Your task to perform on an android device: Open Chrome and go to the settings page Image 0: 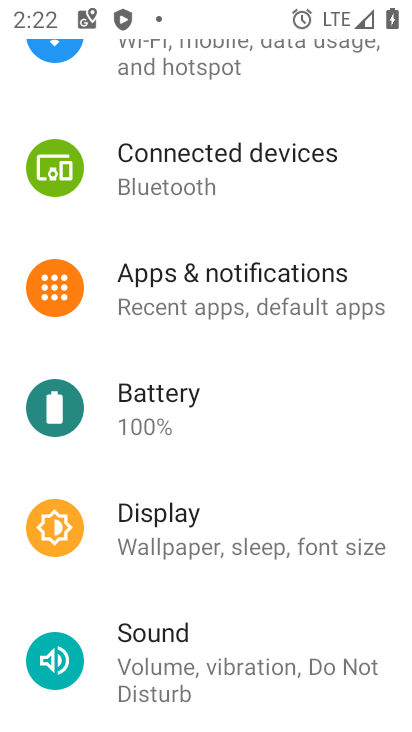
Step 0: press back button
Your task to perform on an android device: Open Chrome and go to the settings page Image 1: 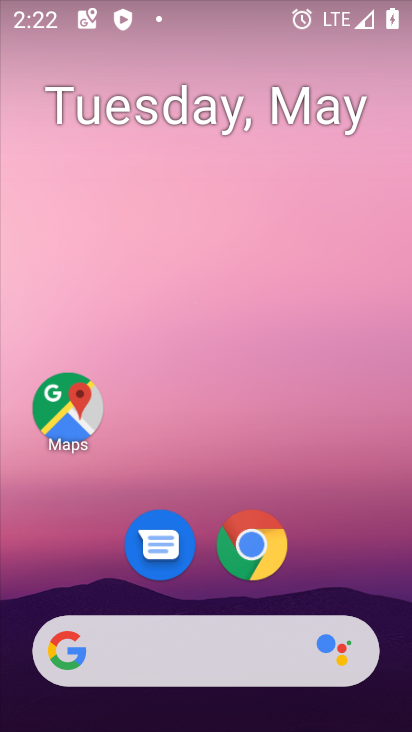
Step 1: drag from (349, 513) to (255, 9)
Your task to perform on an android device: Open Chrome and go to the settings page Image 2: 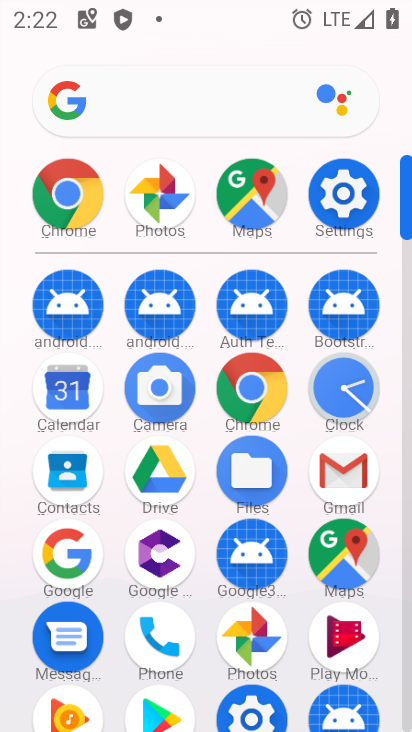
Step 2: click (250, 382)
Your task to perform on an android device: Open Chrome and go to the settings page Image 3: 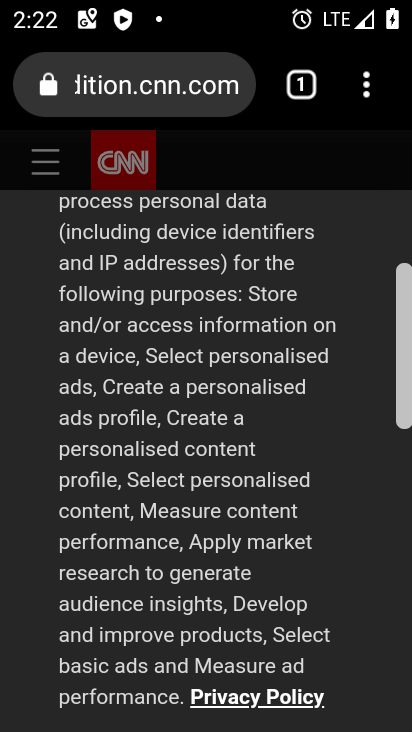
Step 3: task complete